Your task to perform on an android device: When is my next meeting? Image 0: 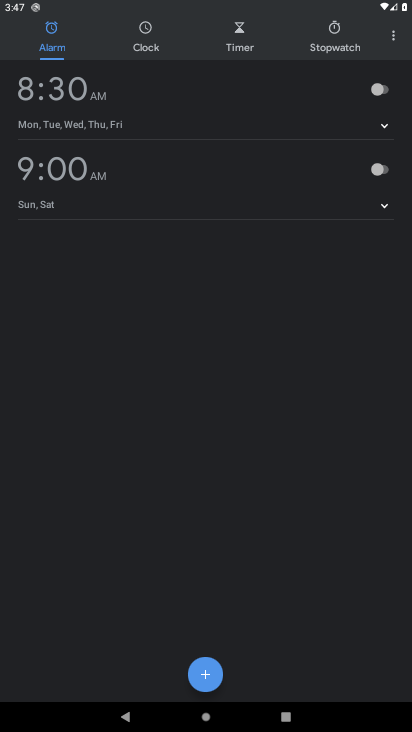
Step 0: press home button
Your task to perform on an android device: When is my next meeting? Image 1: 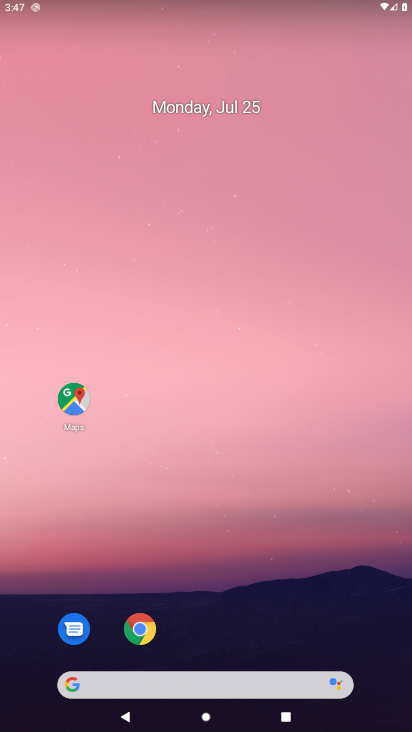
Step 1: drag from (44, 702) to (187, 177)
Your task to perform on an android device: When is my next meeting? Image 2: 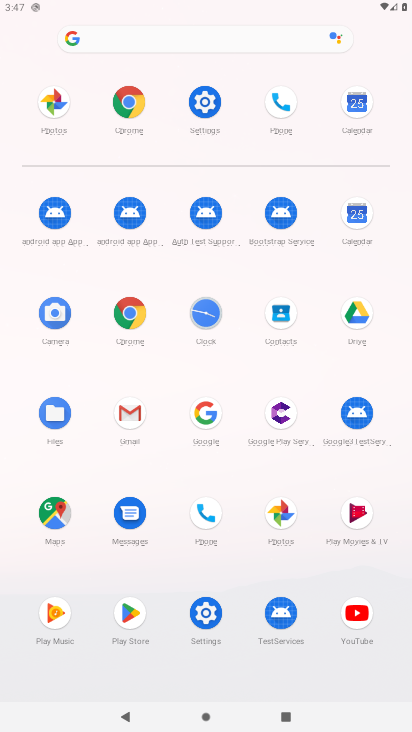
Step 2: click (351, 222)
Your task to perform on an android device: When is my next meeting? Image 3: 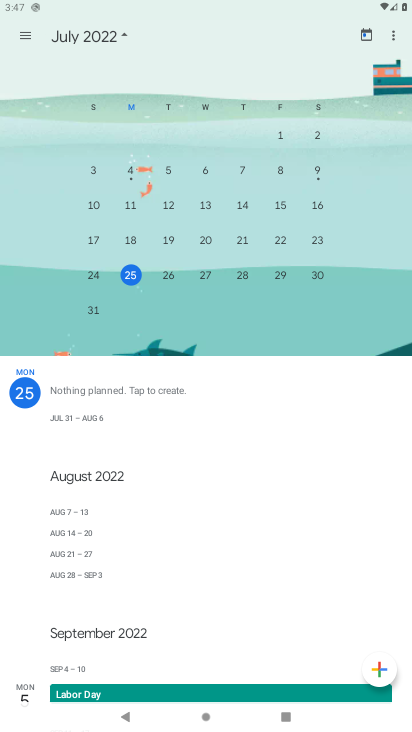
Step 3: task complete